Your task to perform on an android device: See recent photos Image 0: 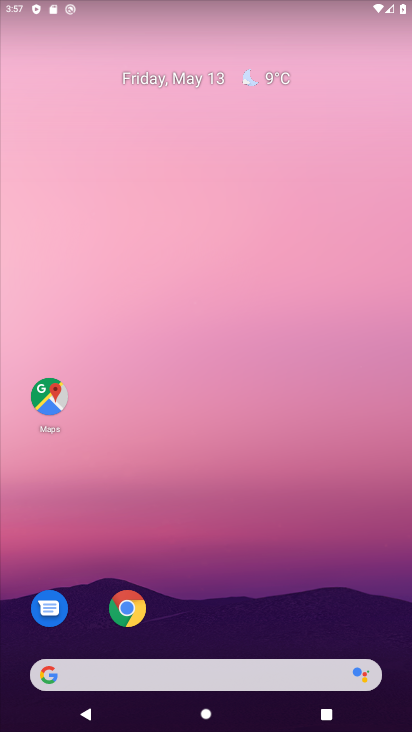
Step 0: drag from (290, 559) to (213, 44)
Your task to perform on an android device: See recent photos Image 1: 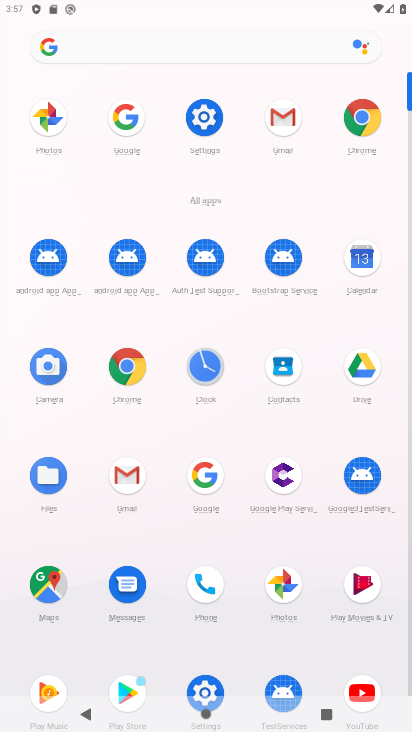
Step 1: click (286, 577)
Your task to perform on an android device: See recent photos Image 2: 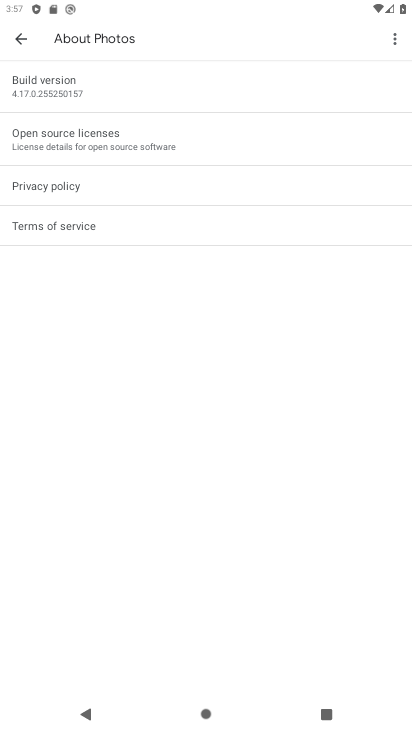
Step 2: click (15, 40)
Your task to perform on an android device: See recent photos Image 3: 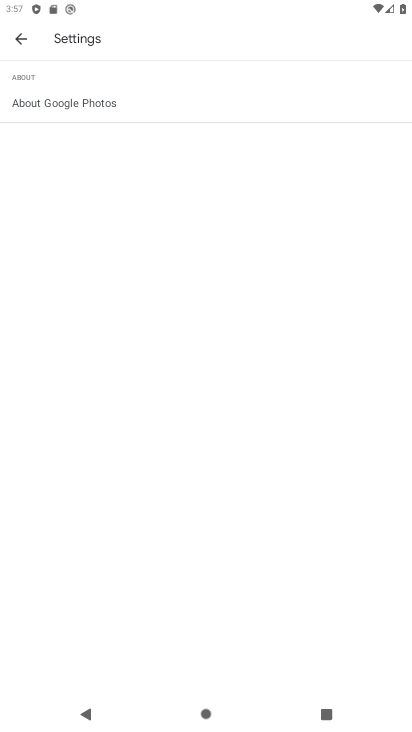
Step 3: click (16, 40)
Your task to perform on an android device: See recent photos Image 4: 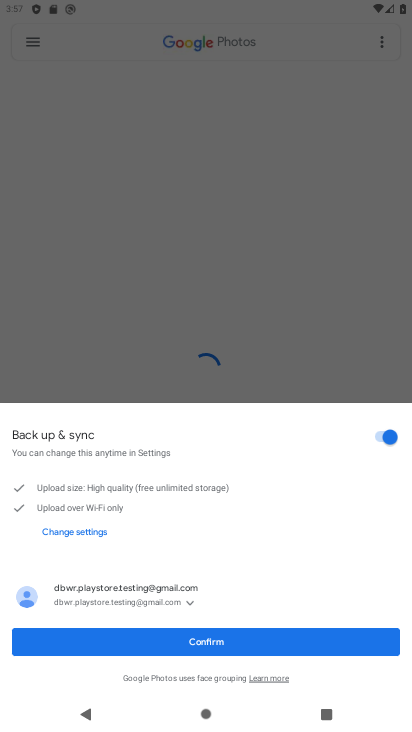
Step 4: click (279, 637)
Your task to perform on an android device: See recent photos Image 5: 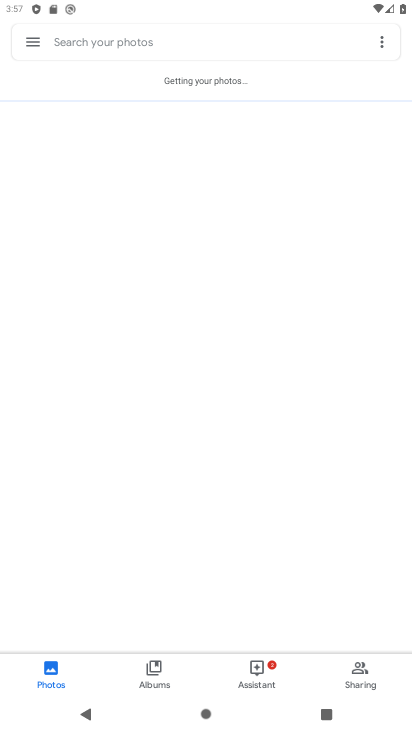
Step 5: click (136, 45)
Your task to perform on an android device: See recent photos Image 6: 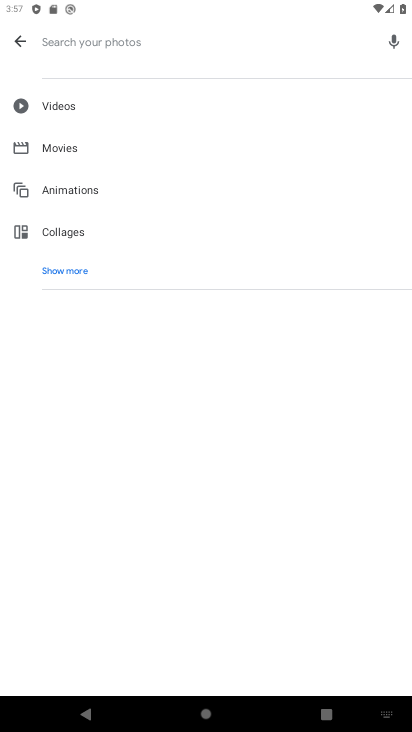
Step 6: type "recent"
Your task to perform on an android device: See recent photos Image 7: 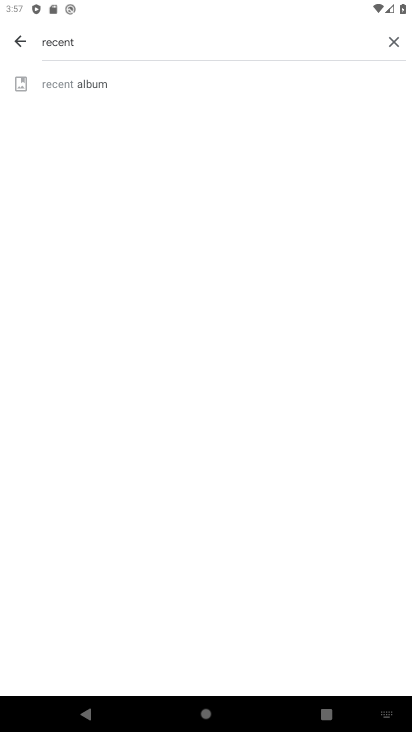
Step 7: click (88, 77)
Your task to perform on an android device: See recent photos Image 8: 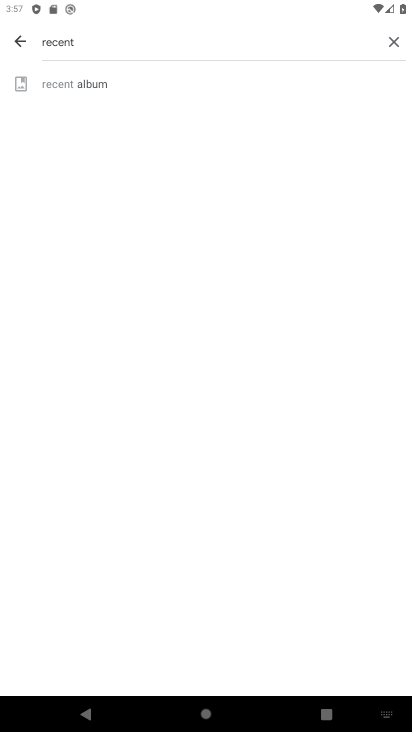
Step 8: task complete